Your task to perform on an android device: Search for sushi restaurants on Maps Image 0: 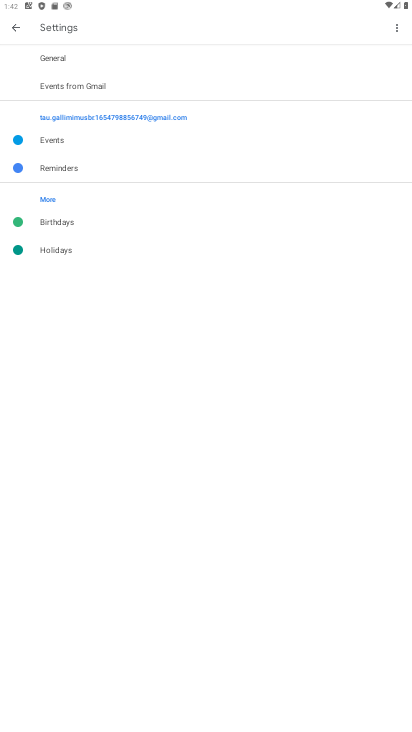
Step 0: press home button
Your task to perform on an android device: Search for sushi restaurants on Maps Image 1: 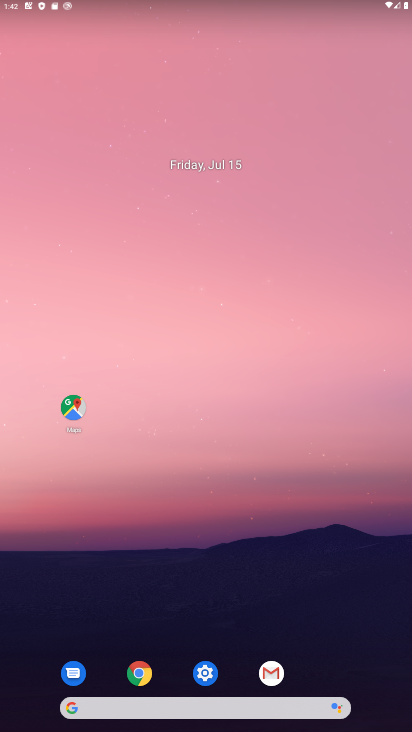
Step 1: click (64, 398)
Your task to perform on an android device: Search for sushi restaurants on Maps Image 2: 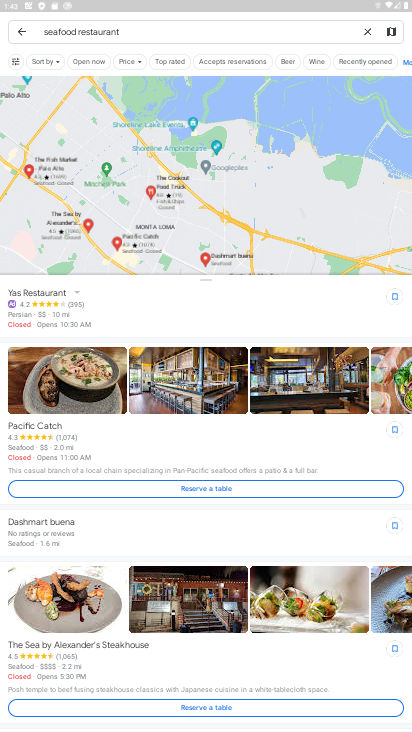
Step 2: click (370, 29)
Your task to perform on an android device: Search for sushi restaurants on Maps Image 3: 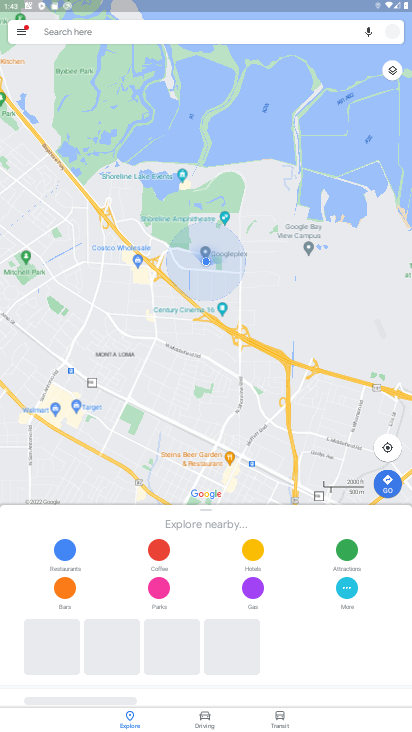
Step 3: click (279, 31)
Your task to perform on an android device: Search for sushi restaurants on Maps Image 4: 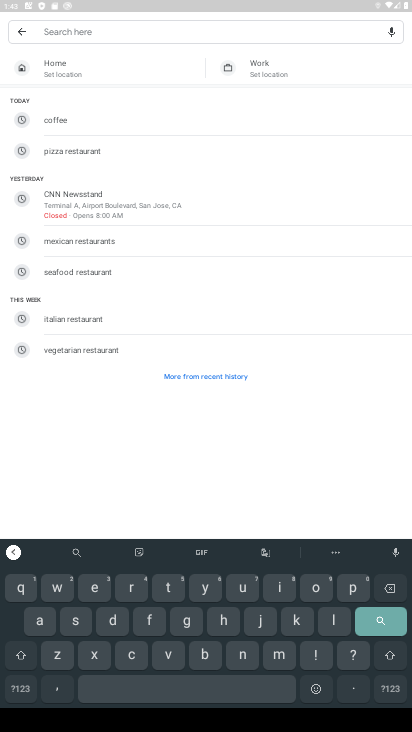
Step 4: click (80, 30)
Your task to perform on an android device: Search for sushi restaurants on Maps Image 5: 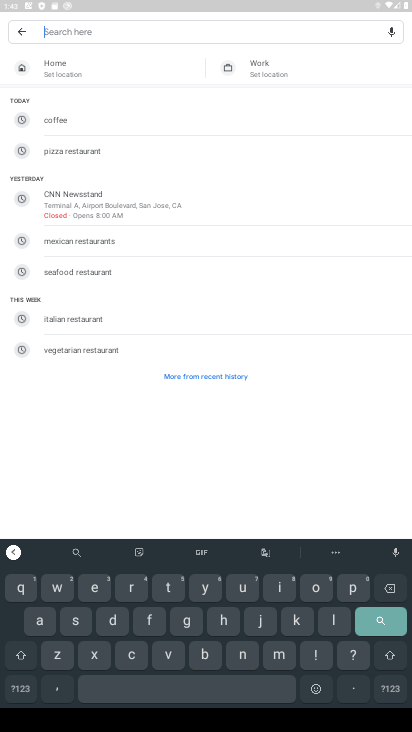
Step 5: click (72, 622)
Your task to perform on an android device: Search for sushi restaurants on Maps Image 6: 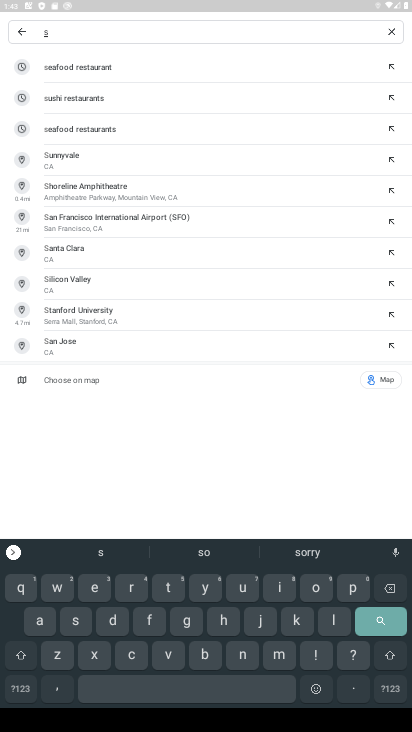
Step 6: click (246, 588)
Your task to perform on an android device: Search for sushi restaurants on Maps Image 7: 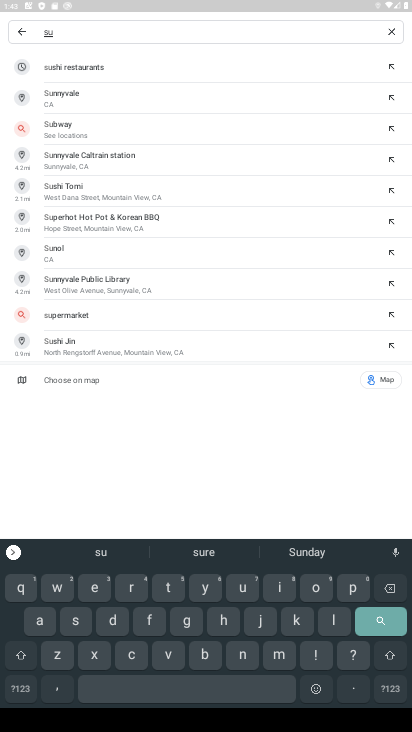
Step 7: click (80, 58)
Your task to perform on an android device: Search for sushi restaurants on Maps Image 8: 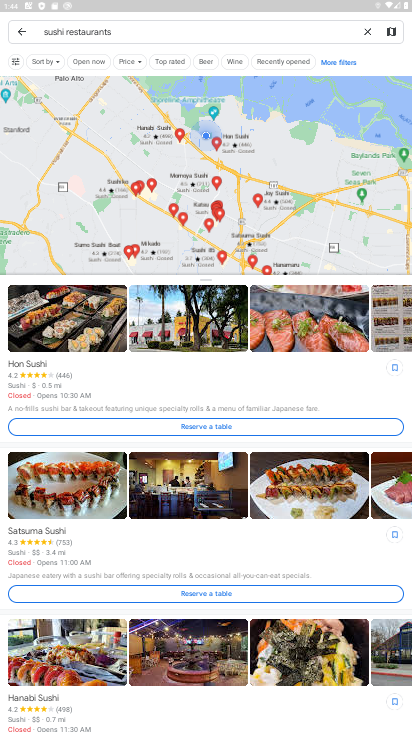
Step 8: task complete